Your task to perform on an android device: toggle show notifications on the lock screen Image 0: 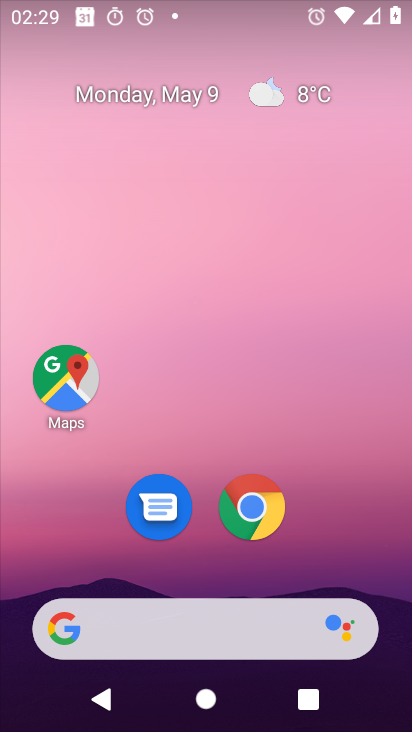
Step 0: drag from (215, 727) to (214, 234)
Your task to perform on an android device: toggle show notifications on the lock screen Image 1: 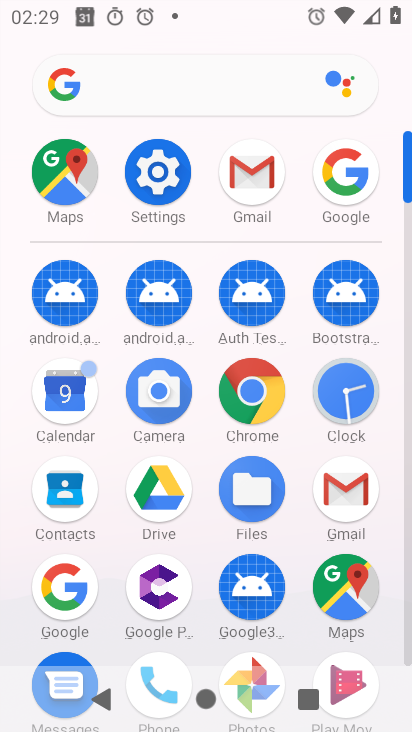
Step 1: click (155, 172)
Your task to perform on an android device: toggle show notifications on the lock screen Image 2: 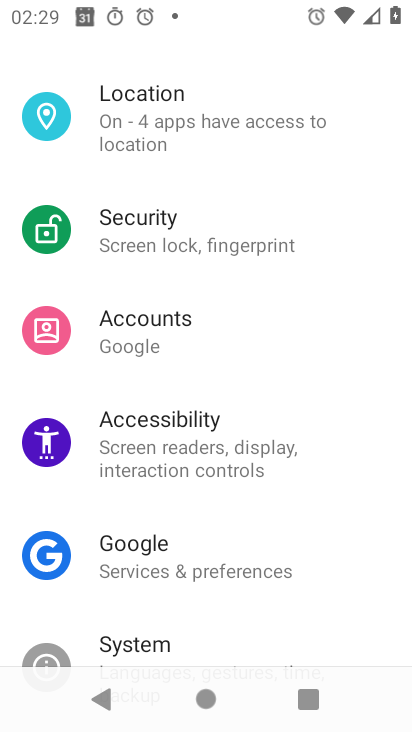
Step 2: drag from (201, 212) to (192, 516)
Your task to perform on an android device: toggle show notifications on the lock screen Image 3: 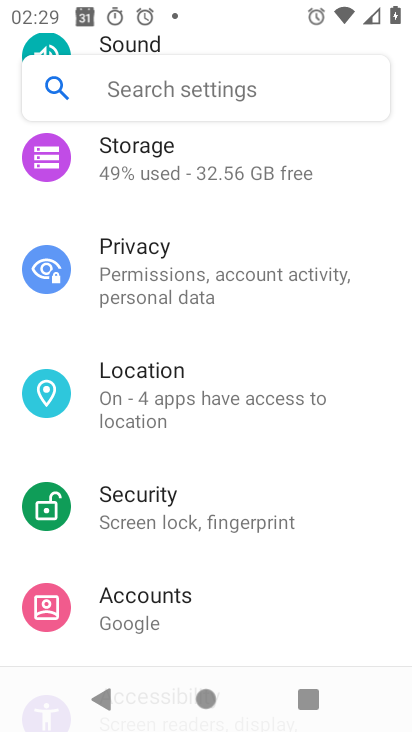
Step 3: drag from (207, 232) to (208, 545)
Your task to perform on an android device: toggle show notifications on the lock screen Image 4: 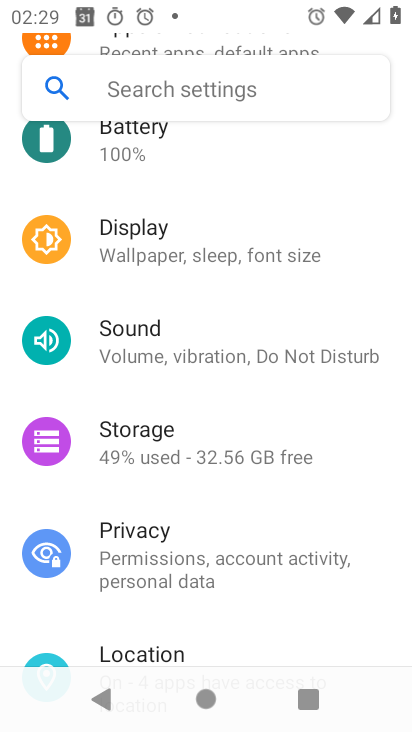
Step 4: drag from (227, 235) to (234, 589)
Your task to perform on an android device: toggle show notifications on the lock screen Image 5: 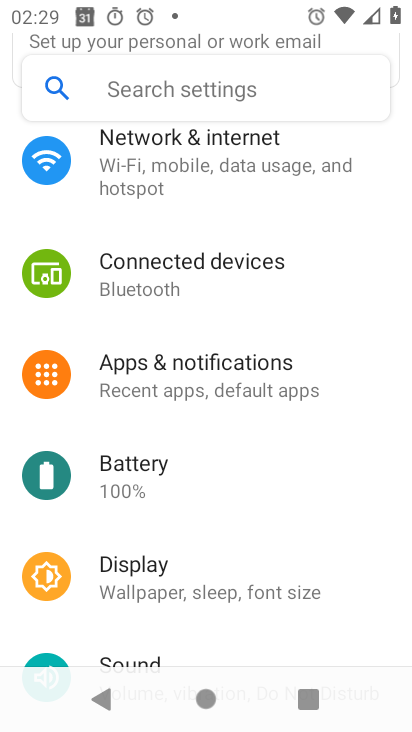
Step 5: click (193, 379)
Your task to perform on an android device: toggle show notifications on the lock screen Image 6: 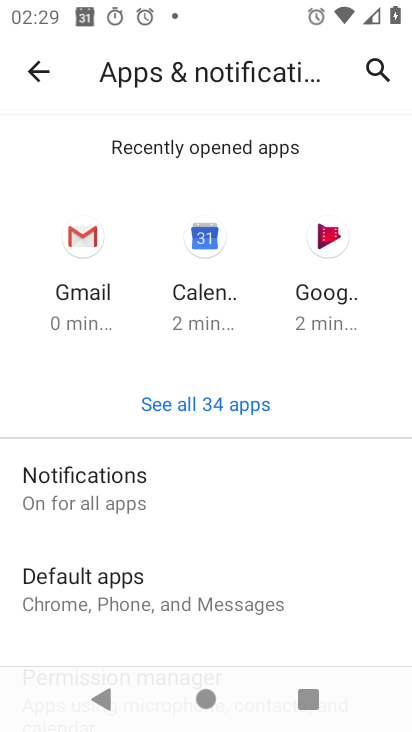
Step 6: drag from (187, 583) to (185, 382)
Your task to perform on an android device: toggle show notifications on the lock screen Image 7: 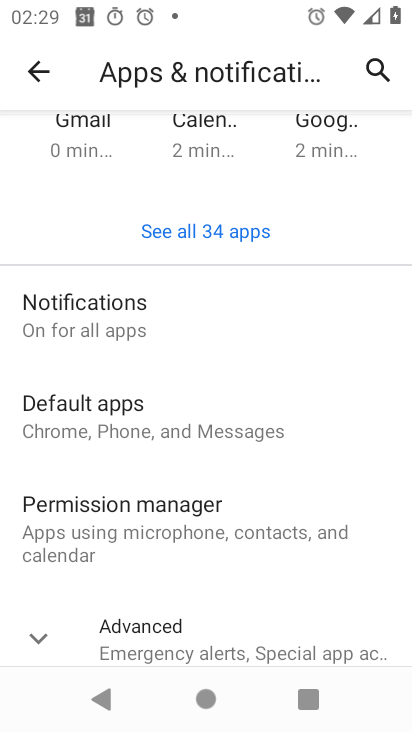
Step 7: click (94, 311)
Your task to perform on an android device: toggle show notifications on the lock screen Image 8: 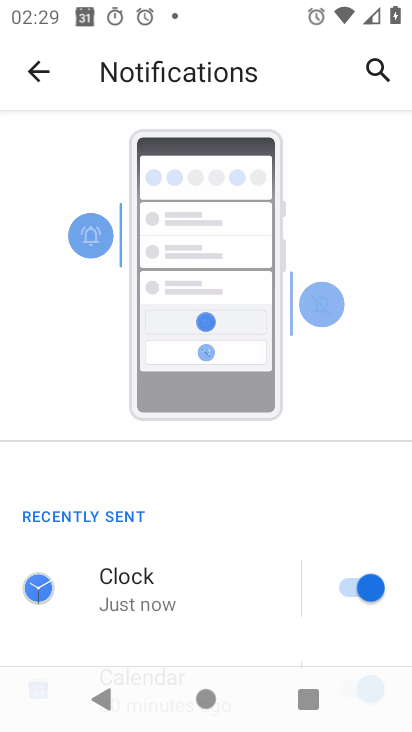
Step 8: click (87, 303)
Your task to perform on an android device: toggle show notifications on the lock screen Image 9: 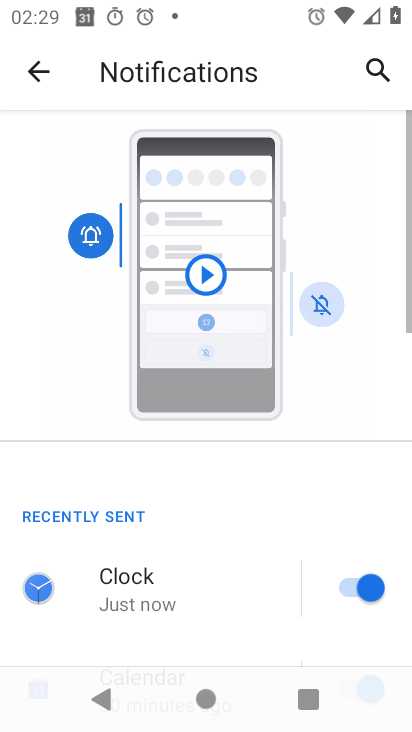
Step 9: drag from (234, 614) to (233, 380)
Your task to perform on an android device: toggle show notifications on the lock screen Image 10: 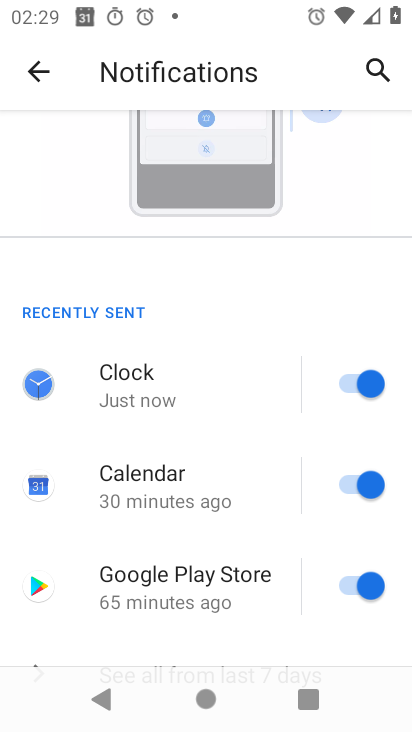
Step 10: drag from (210, 646) to (209, 339)
Your task to perform on an android device: toggle show notifications on the lock screen Image 11: 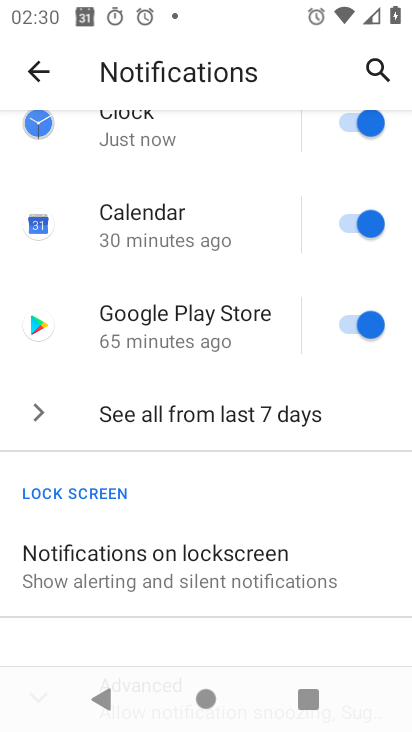
Step 11: drag from (226, 601) to (223, 389)
Your task to perform on an android device: toggle show notifications on the lock screen Image 12: 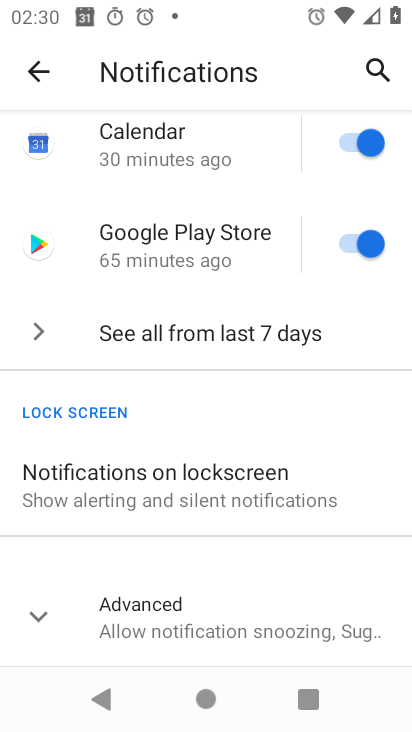
Step 12: click (182, 487)
Your task to perform on an android device: toggle show notifications on the lock screen Image 13: 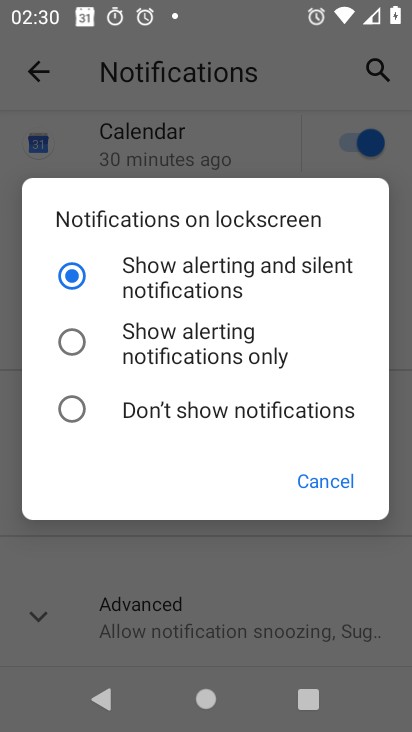
Step 13: click (72, 342)
Your task to perform on an android device: toggle show notifications on the lock screen Image 14: 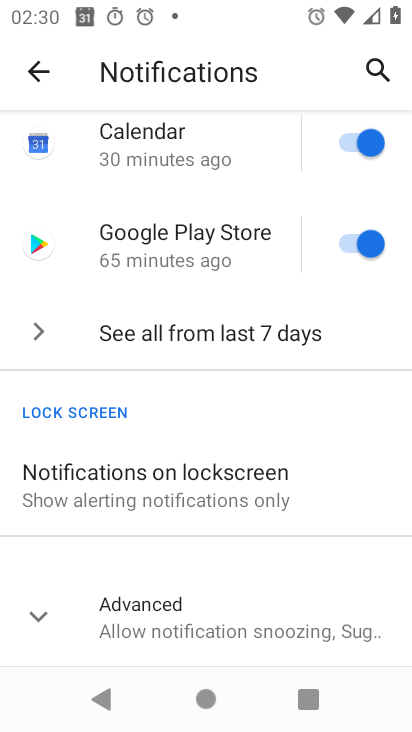
Step 14: task complete